Your task to perform on an android device: choose inbox layout in the gmail app Image 0: 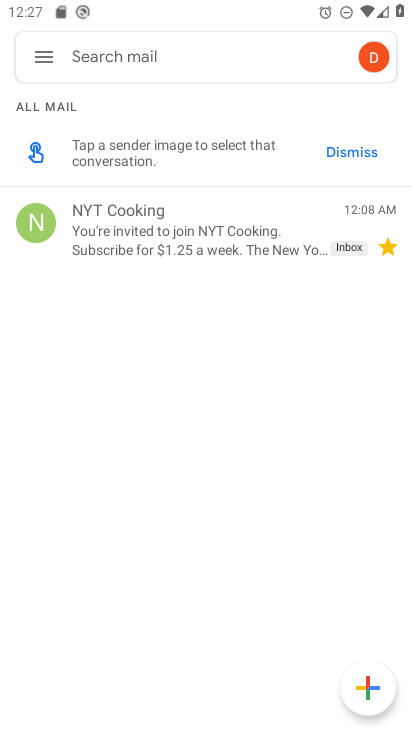
Step 0: click (53, 54)
Your task to perform on an android device: choose inbox layout in the gmail app Image 1: 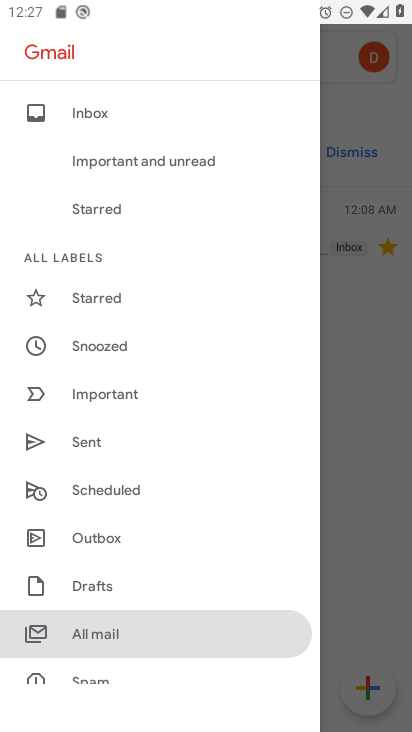
Step 1: drag from (95, 686) to (116, 297)
Your task to perform on an android device: choose inbox layout in the gmail app Image 2: 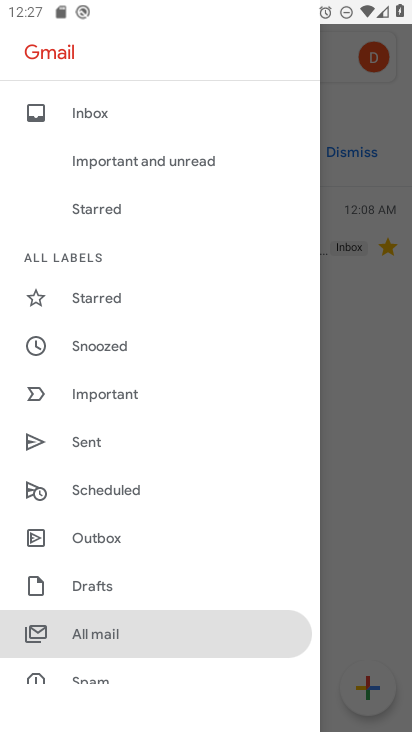
Step 2: drag from (159, 632) to (150, 255)
Your task to perform on an android device: choose inbox layout in the gmail app Image 3: 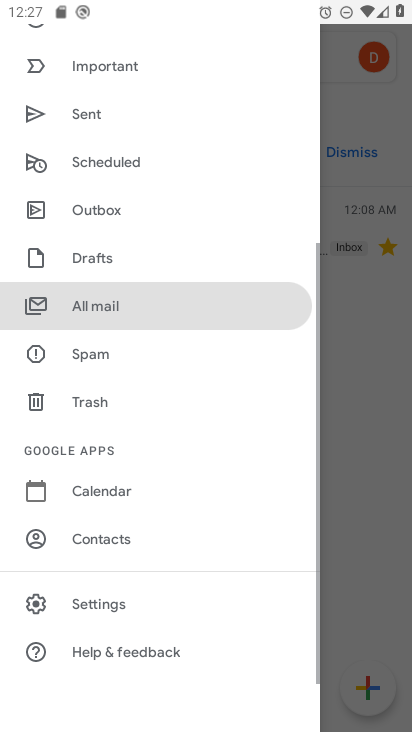
Step 3: click (102, 604)
Your task to perform on an android device: choose inbox layout in the gmail app Image 4: 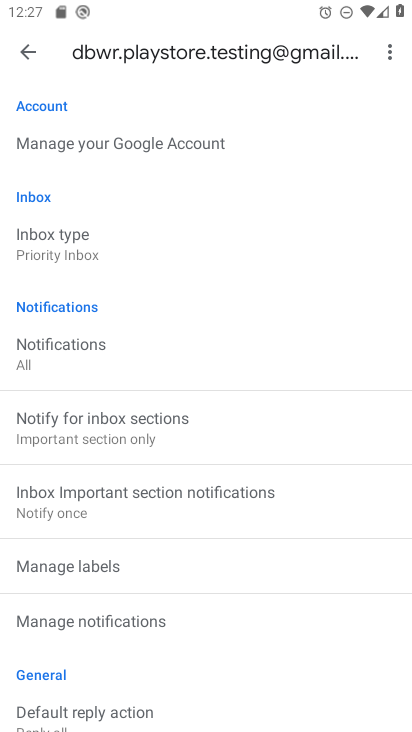
Step 4: click (57, 247)
Your task to perform on an android device: choose inbox layout in the gmail app Image 5: 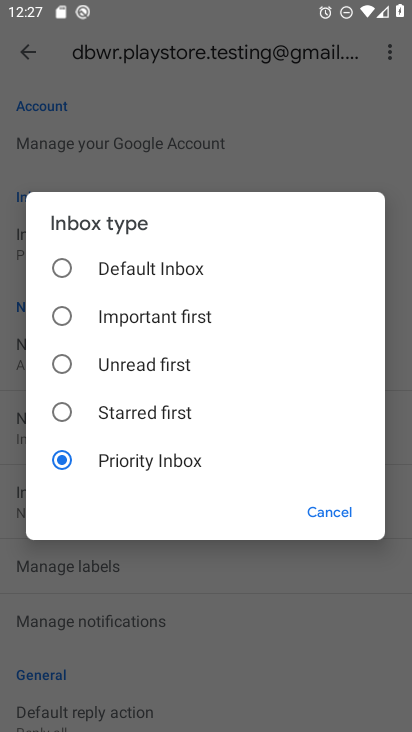
Step 5: click (103, 314)
Your task to perform on an android device: choose inbox layout in the gmail app Image 6: 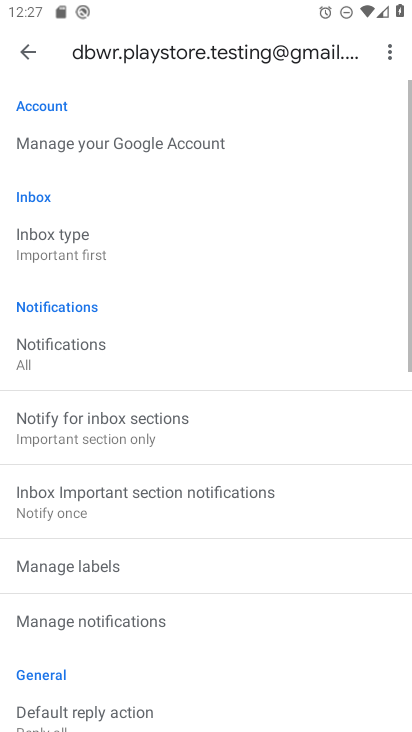
Step 6: task complete